Your task to perform on an android device: refresh tabs in the chrome app Image 0: 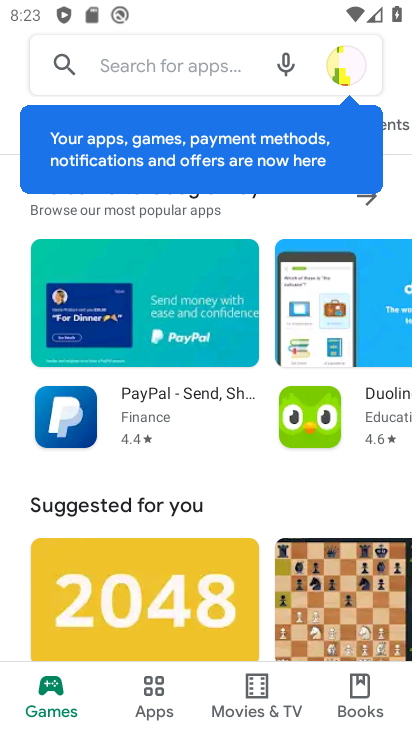
Step 0: press back button
Your task to perform on an android device: refresh tabs in the chrome app Image 1: 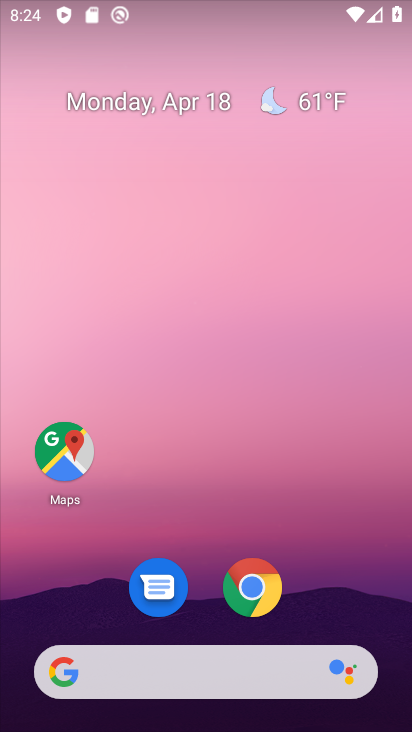
Step 1: click (253, 589)
Your task to perform on an android device: refresh tabs in the chrome app Image 2: 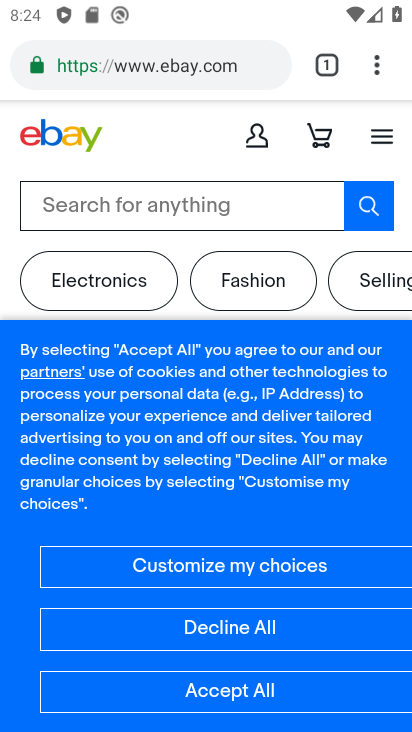
Step 2: click (377, 61)
Your task to perform on an android device: refresh tabs in the chrome app Image 3: 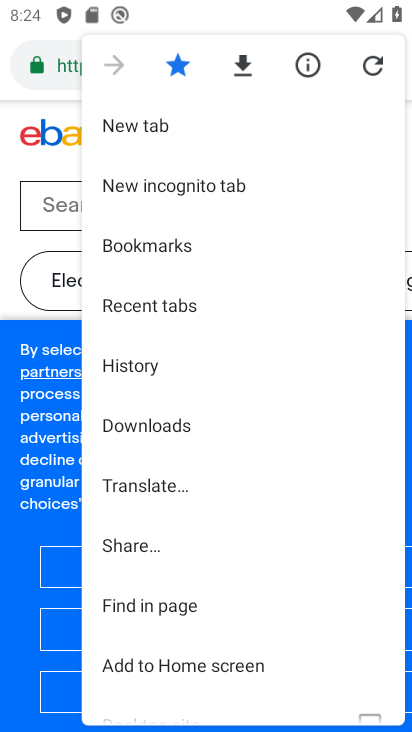
Step 3: click (371, 63)
Your task to perform on an android device: refresh tabs in the chrome app Image 4: 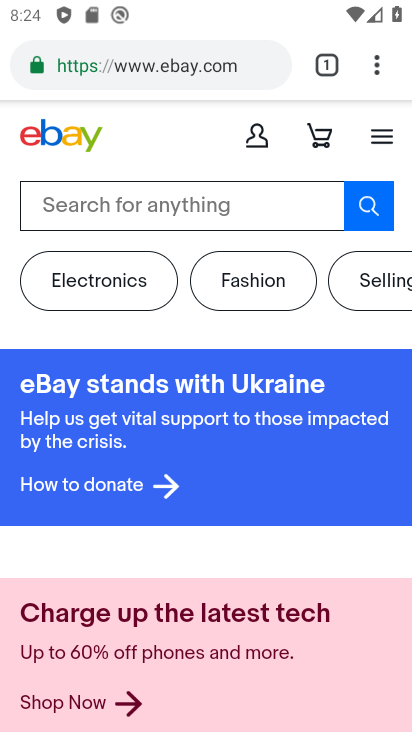
Step 4: task complete